Your task to perform on an android device: change notifications settings Image 0: 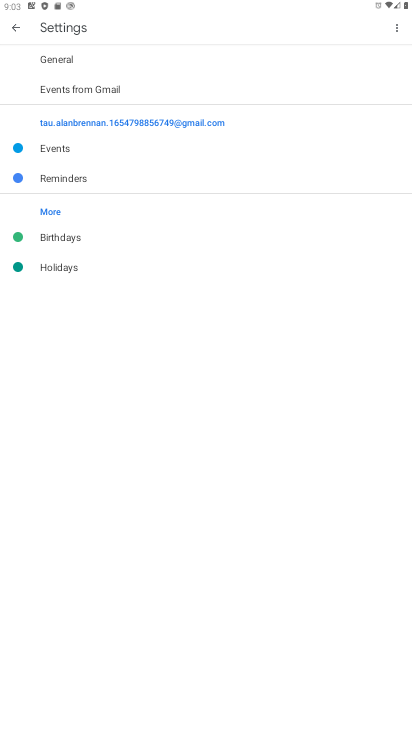
Step 0: press home button
Your task to perform on an android device: change notifications settings Image 1: 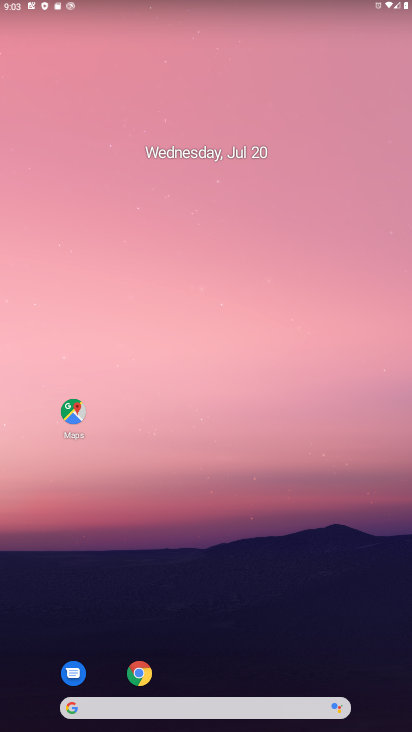
Step 1: drag from (185, 170) to (184, 134)
Your task to perform on an android device: change notifications settings Image 2: 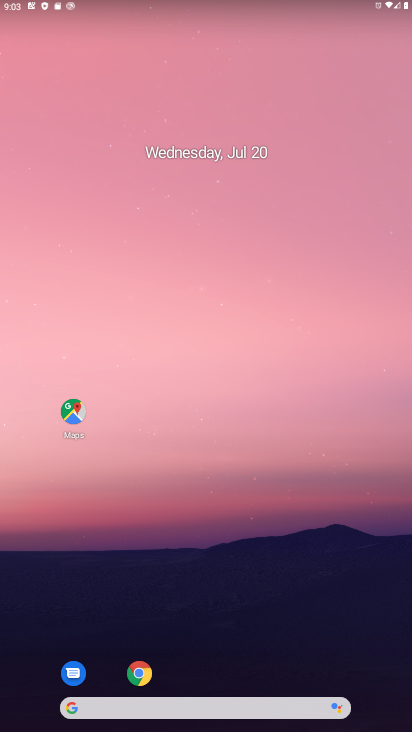
Step 2: drag from (239, 728) to (189, 95)
Your task to perform on an android device: change notifications settings Image 3: 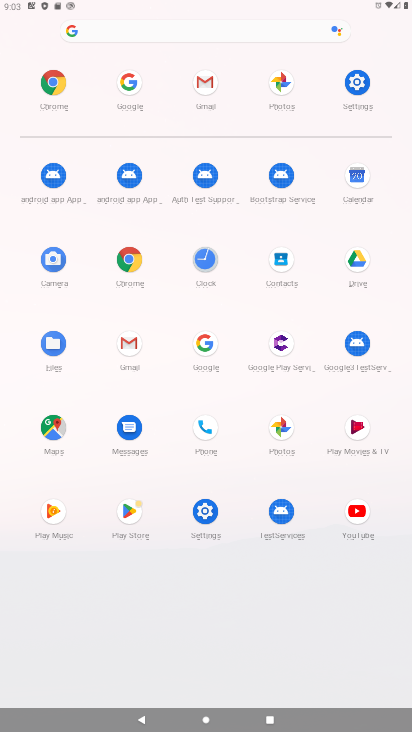
Step 3: click (360, 79)
Your task to perform on an android device: change notifications settings Image 4: 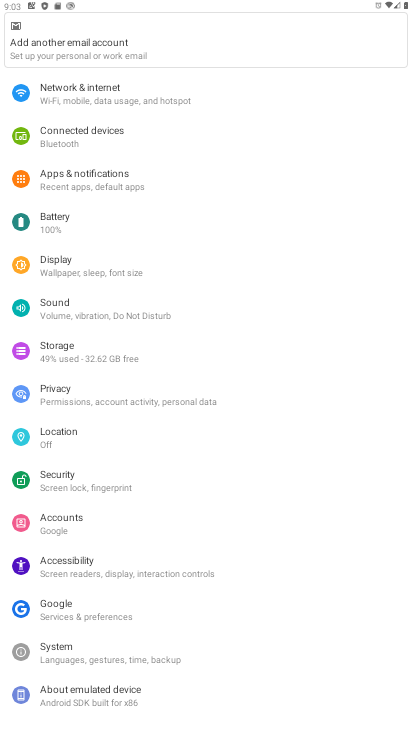
Step 4: click (70, 177)
Your task to perform on an android device: change notifications settings Image 5: 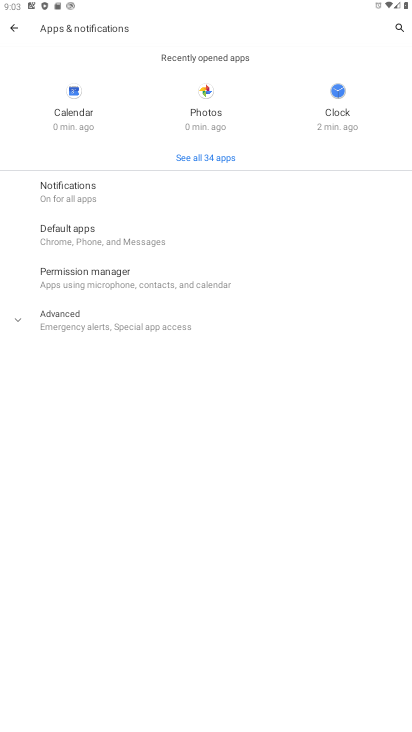
Step 5: click (74, 186)
Your task to perform on an android device: change notifications settings Image 6: 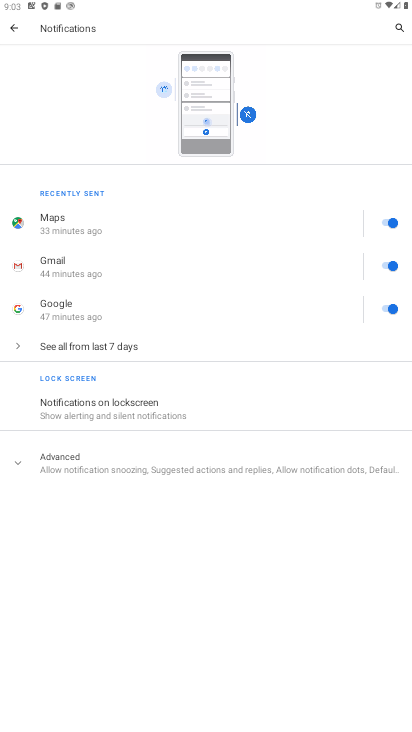
Step 6: click (224, 459)
Your task to perform on an android device: change notifications settings Image 7: 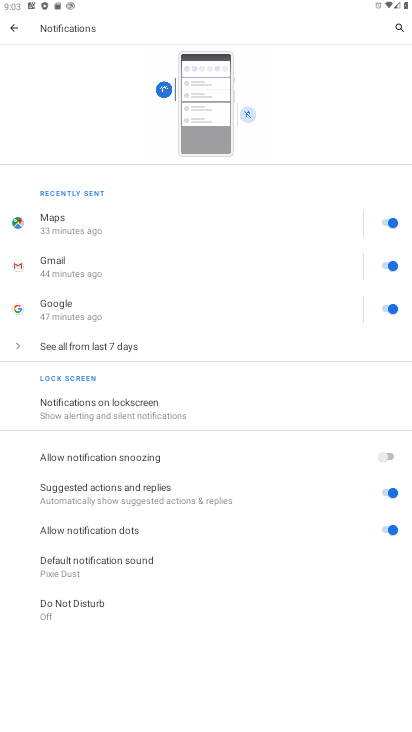
Step 7: click (380, 457)
Your task to perform on an android device: change notifications settings Image 8: 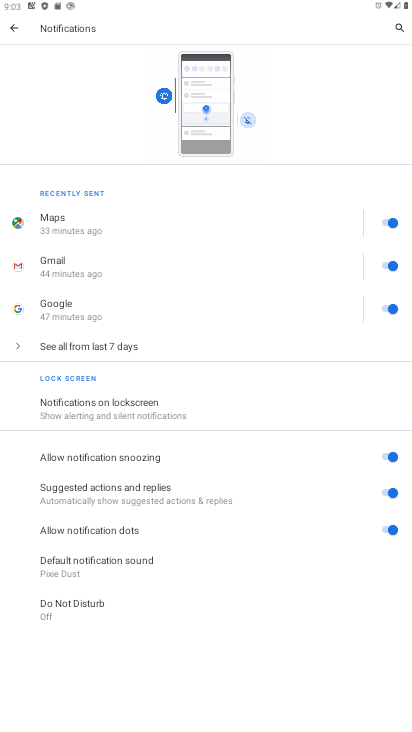
Step 8: task complete